Your task to perform on an android device: Open Google Chrome and open the bookmarks view Image 0: 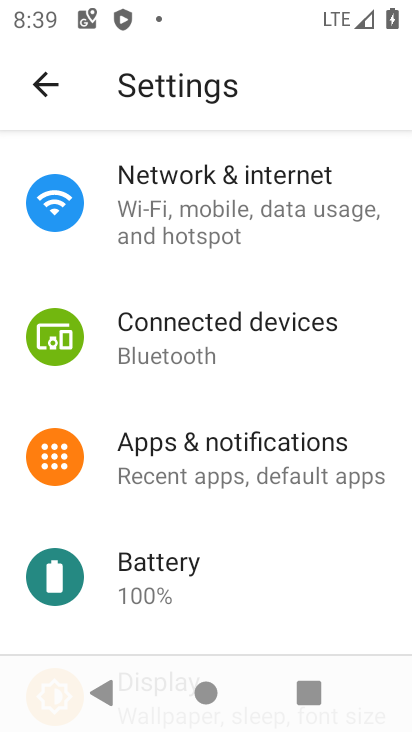
Step 0: press home button
Your task to perform on an android device: Open Google Chrome and open the bookmarks view Image 1: 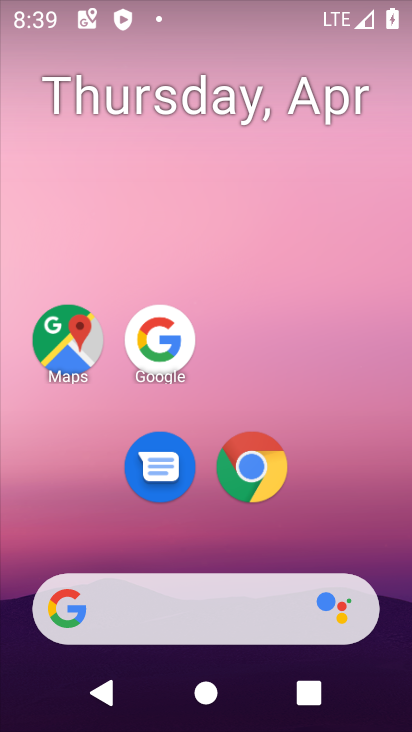
Step 1: click (262, 489)
Your task to perform on an android device: Open Google Chrome and open the bookmarks view Image 2: 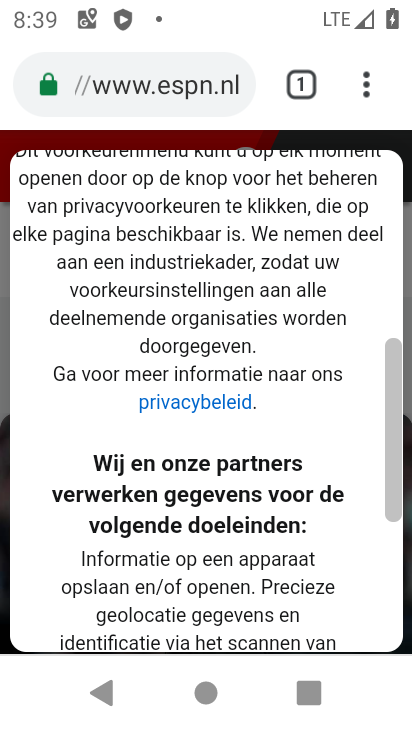
Step 2: drag from (359, 91) to (248, 433)
Your task to perform on an android device: Open Google Chrome and open the bookmarks view Image 3: 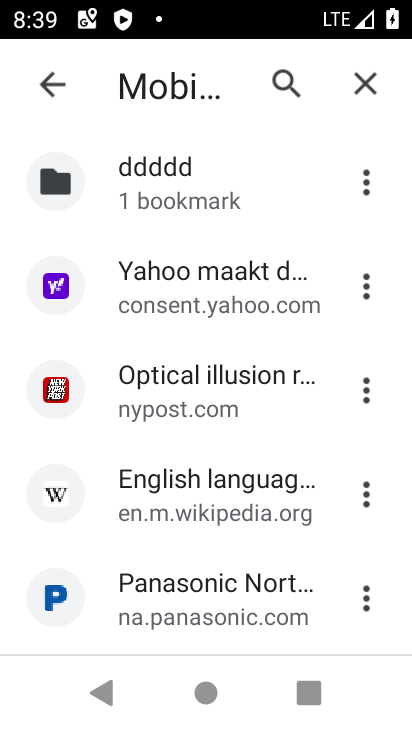
Step 3: click (232, 283)
Your task to perform on an android device: Open Google Chrome and open the bookmarks view Image 4: 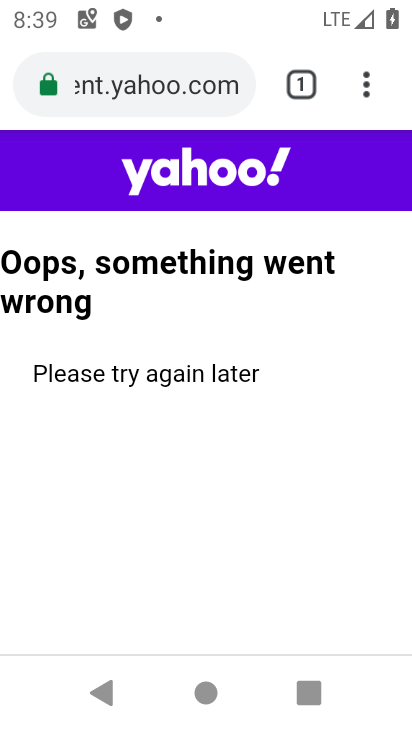
Step 4: task complete